Your task to perform on an android device: turn off smart reply in the gmail app Image 0: 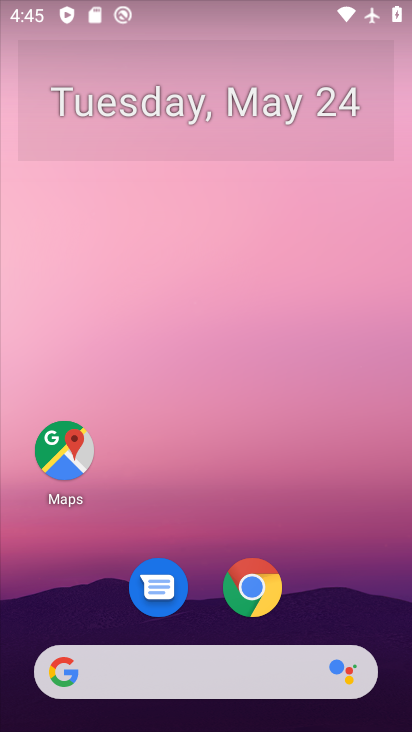
Step 0: drag from (337, 540) to (259, 2)
Your task to perform on an android device: turn off smart reply in the gmail app Image 1: 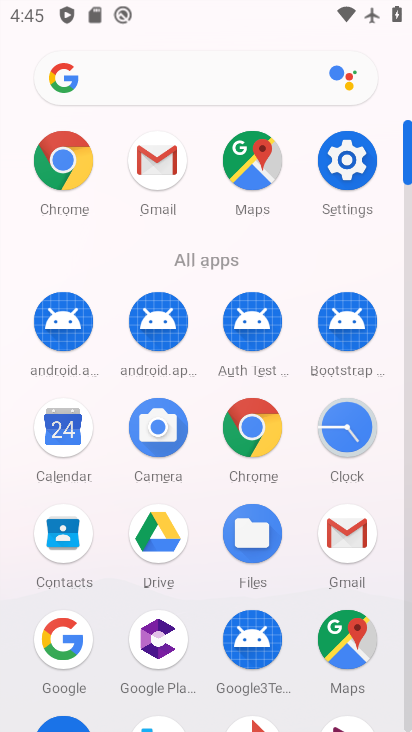
Step 1: click (351, 537)
Your task to perform on an android device: turn off smart reply in the gmail app Image 2: 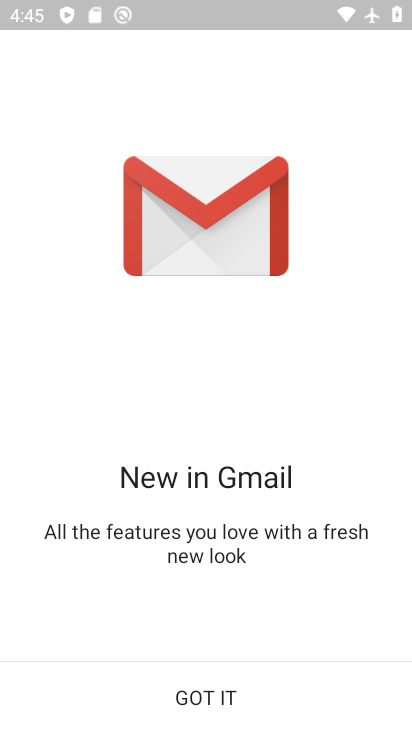
Step 2: click (202, 695)
Your task to perform on an android device: turn off smart reply in the gmail app Image 3: 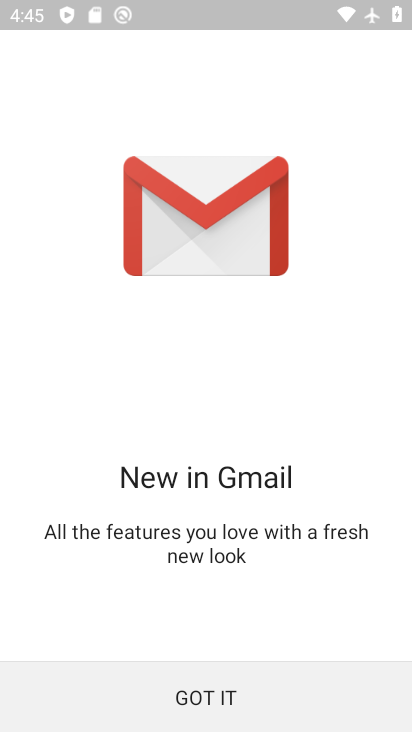
Step 3: click (205, 693)
Your task to perform on an android device: turn off smart reply in the gmail app Image 4: 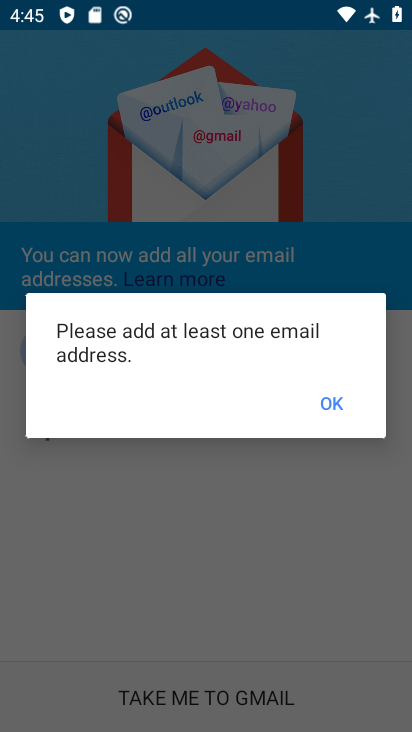
Step 4: click (327, 400)
Your task to perform on an android device: turn off smart reply in the gmail app Image 5: 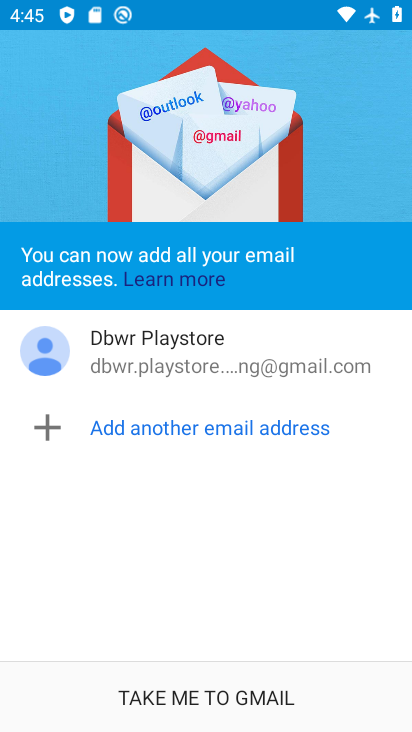
Step 5: click (165, 697)
Your task to perform on an android device: turn off smart reply in the gmail app Image 6: 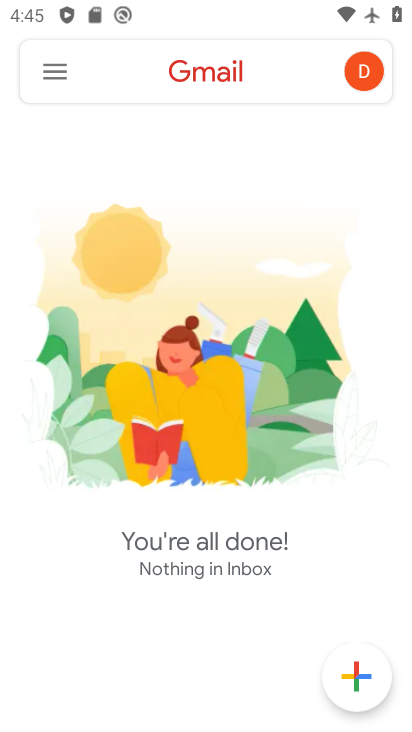
Step 6: click (53, 68)
Your task to perform on an android device: turn off smart reply in the gmail app Image 7: 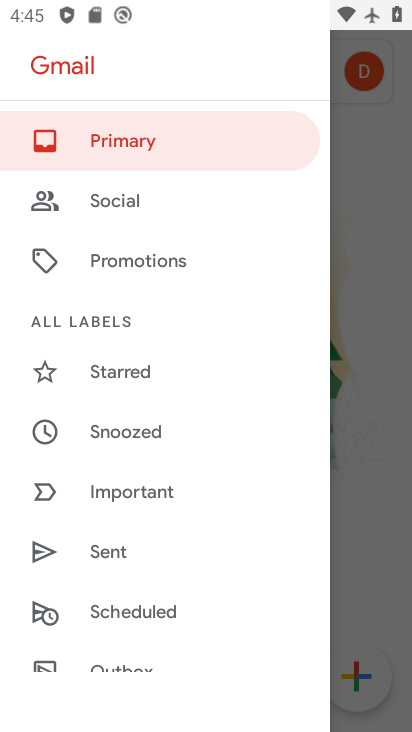
Step 7: drag from (185, 620) to (193, 50)
Your task to perform on an android device: turn off smart reply in the gmail app Image 8: 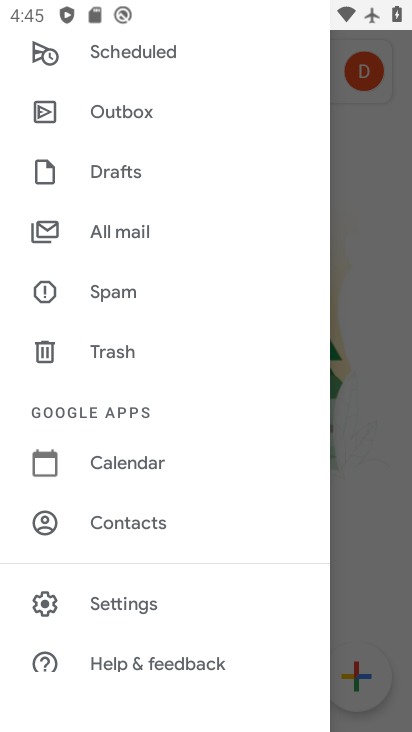
Step 8: click (159, 588)
Your task to perform on an android device: turn off smart reply in the gmail app Image 9: 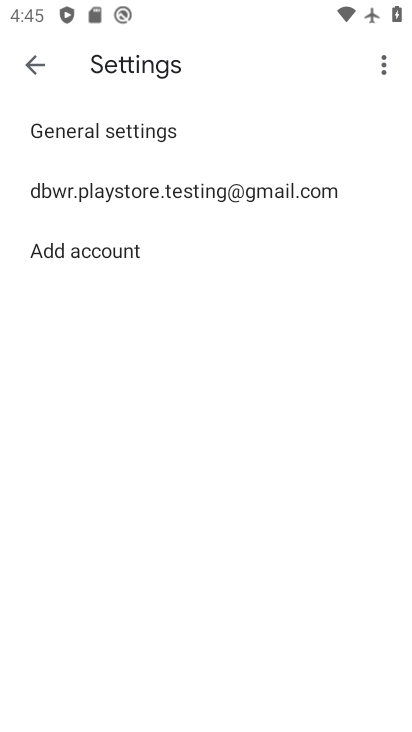
Step 9: click (175, 177)
Your task to perform on an android device: turn off smart reply in the gmail app Image 10: 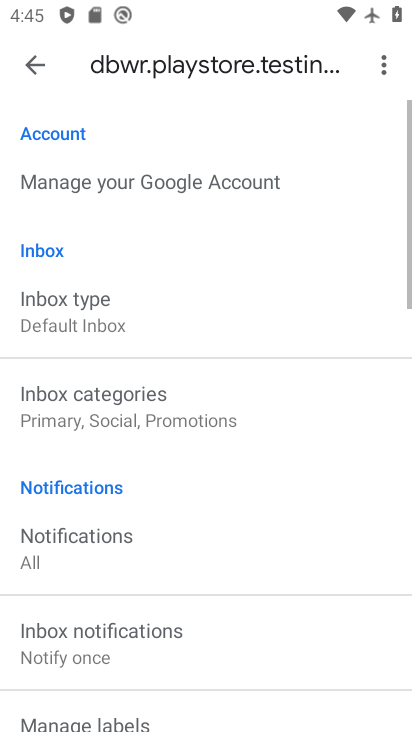
Step 10: drag from (269, 517) to (204, 90)
Your task to perform on an android device: turn off smart reply in the gmail app Image 11: 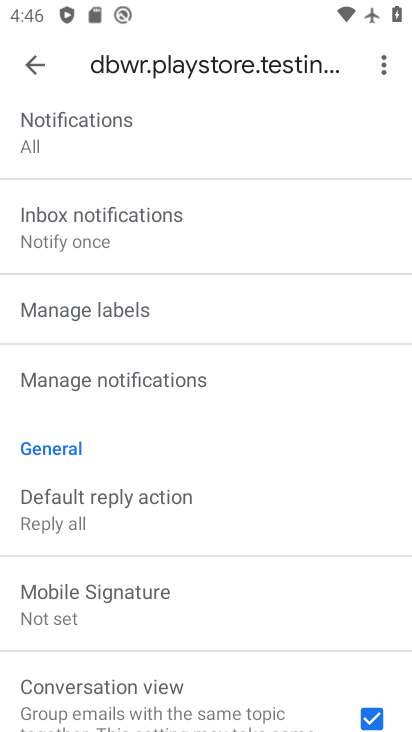
Step 11: drag from (185, 646) to (193, 162)
Your task to perform on an android device: turn off smart reply in the gmail app Image 12: 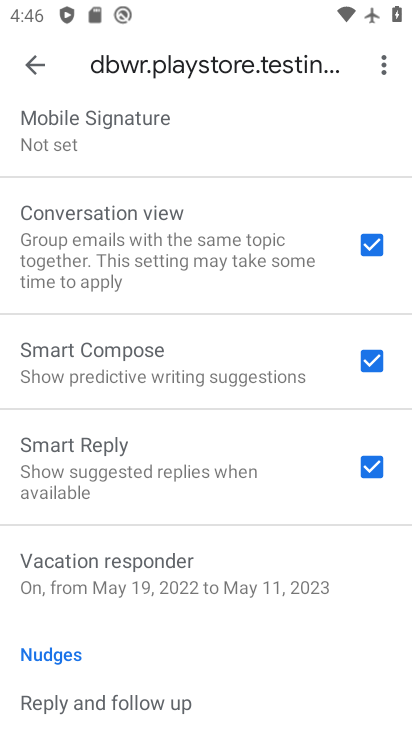
Step 12: click (377, 464)
Your task to perform on an android device: turn off smart reply in the gmail app Image 13: 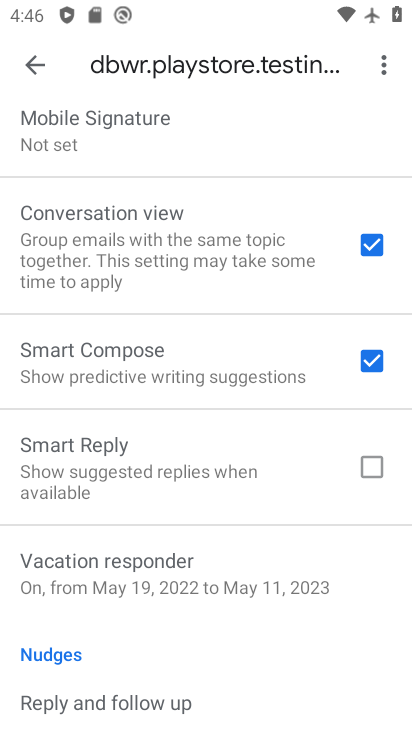
Step 13: task complete